Your task to perform on an android device: turn off notifications in google photos Image 0: 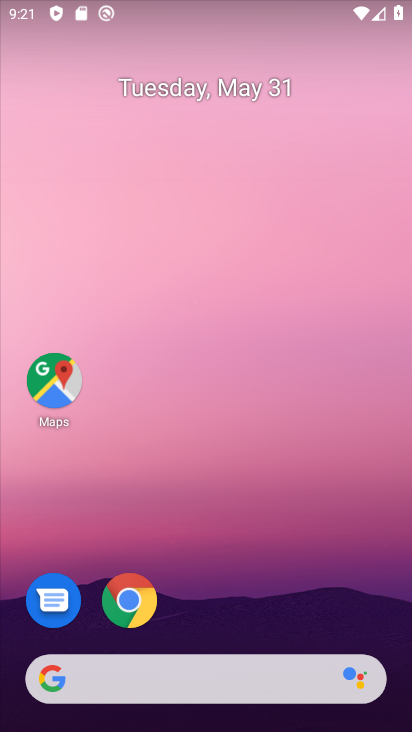
Step 0: drag from (232, 613) to (230, 275)
Your task to perform on an android device: turn off notifications in google photos Image 1: 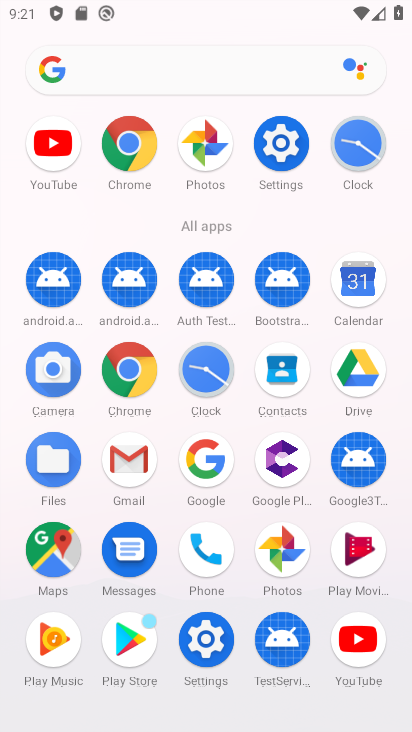
Step 1: click (199, 171)
Your task to perform on an android device: turn off notifications in google photos Image 2: 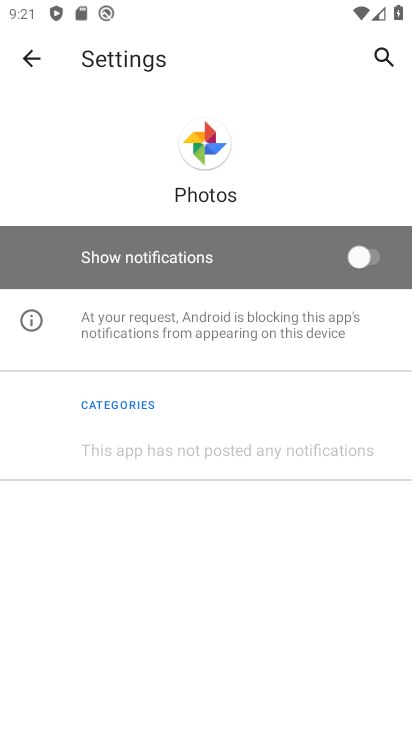
Step 2: task complete